Your task to perform on an android device: Open settings Image 0: 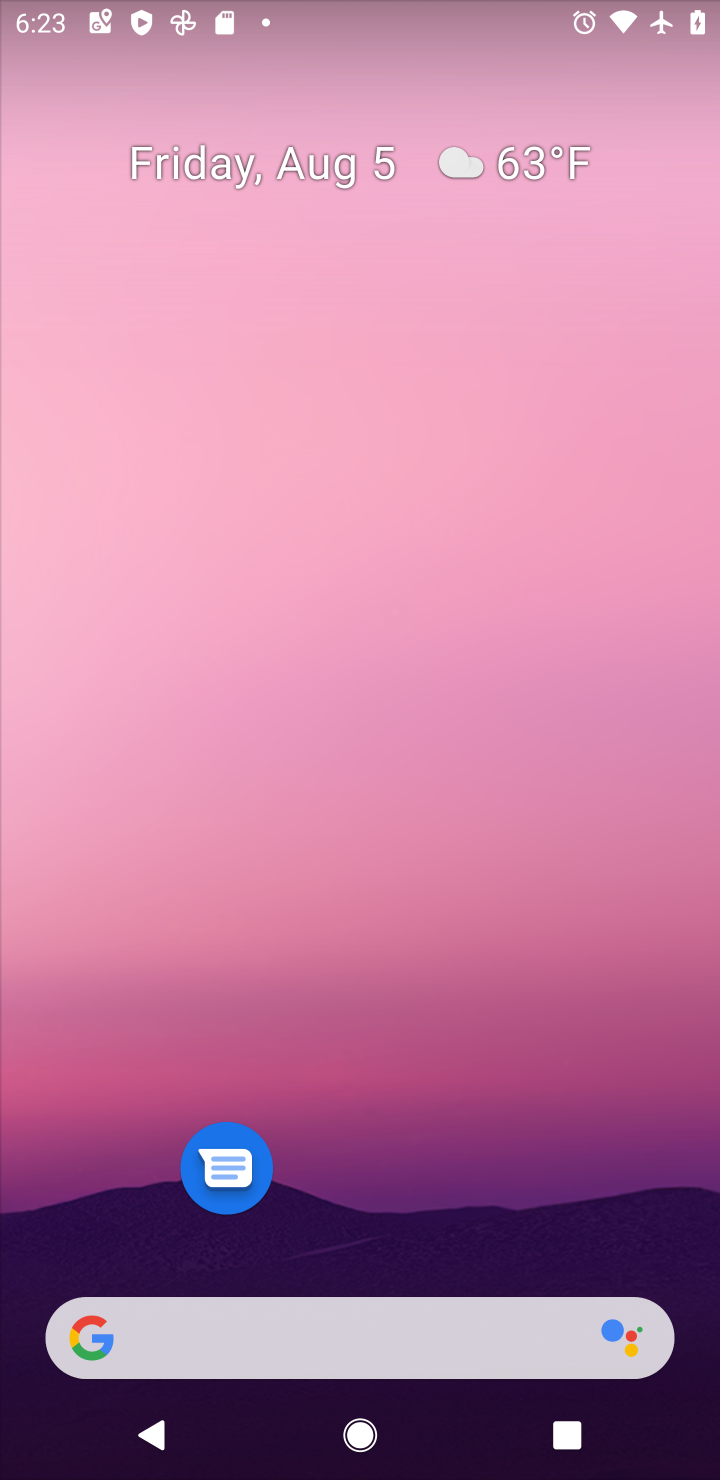
Step 0: drag from (491, 957) to (550, 302)
Your task to perform on an android device: Open settings Image 1: 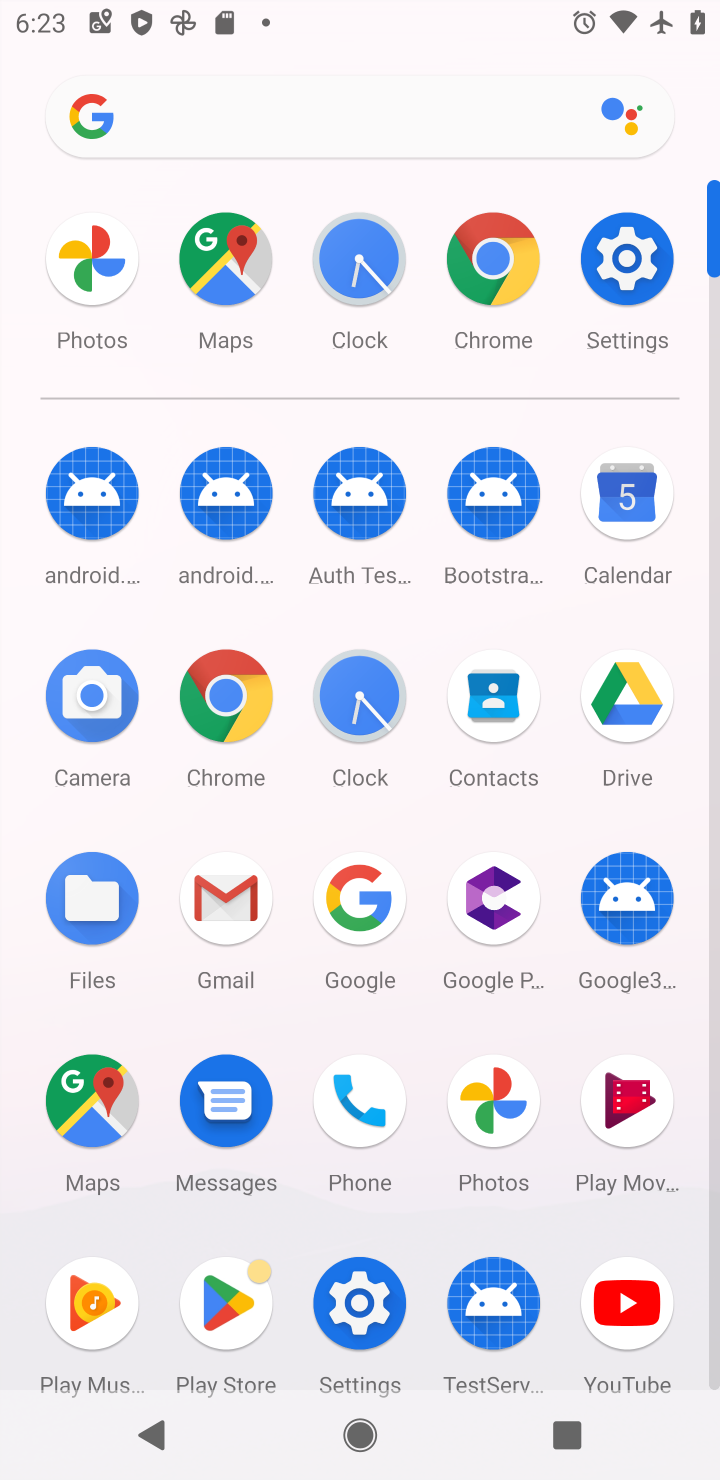
Step 1: click (617, 264)
Your task to perform on an android device: Open settings Image 2: 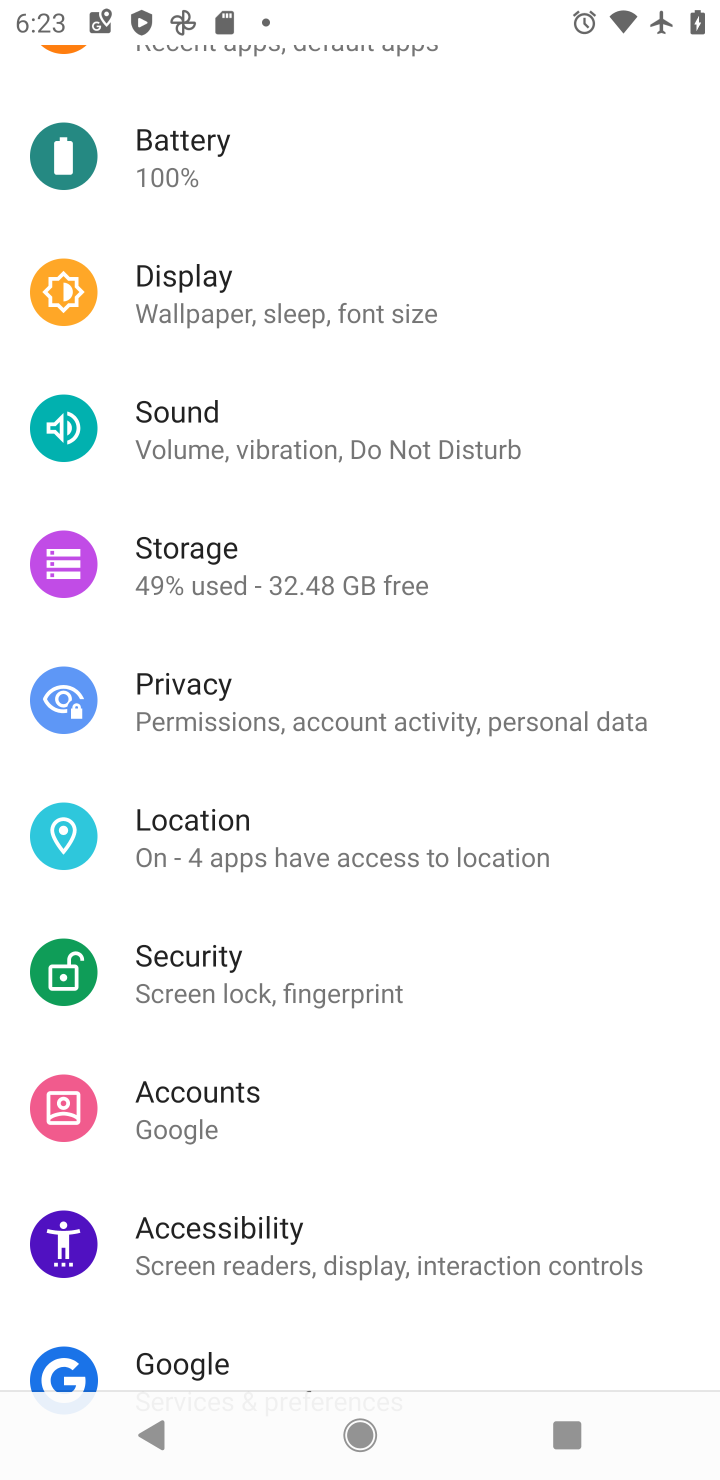
Step 2: task complete